Your task to perform on an android device: open chrome and create a bookmark for the current page Image 0: 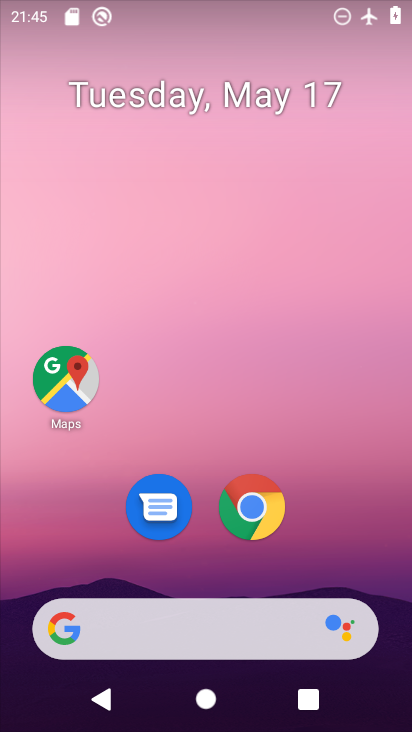
Step 0: click (262, 520)
Your task to perform on an android device: open chrome and create a bookmark for the current page Image 1: 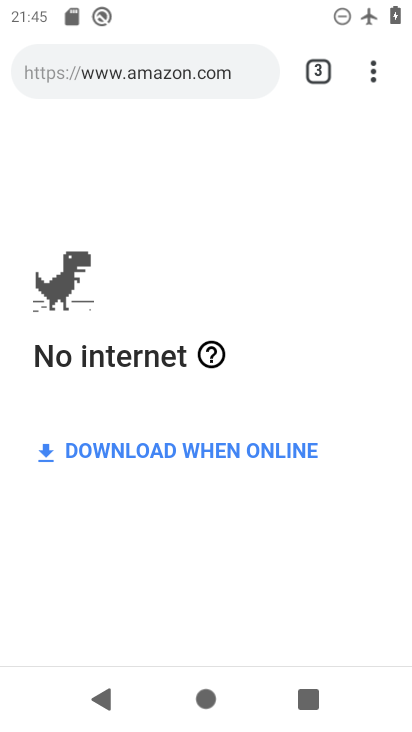
Step 1: click (376, 74)
Your task to perform on an android device: open chrome and create a bookmark for the current page Image 2: 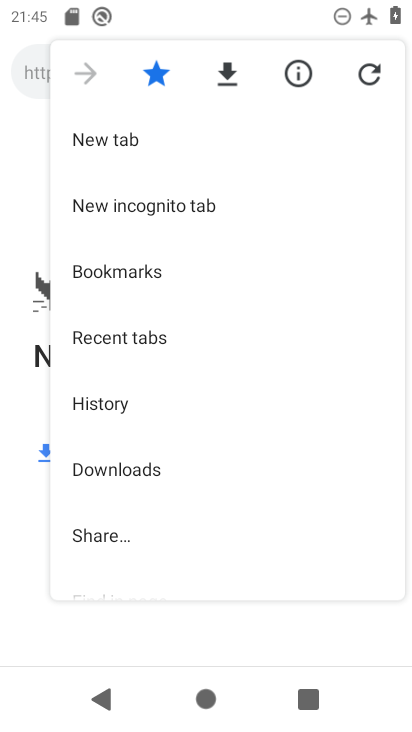
Step 2: task complete